Your task to perform on an android device: open app "Grab" Image 0: 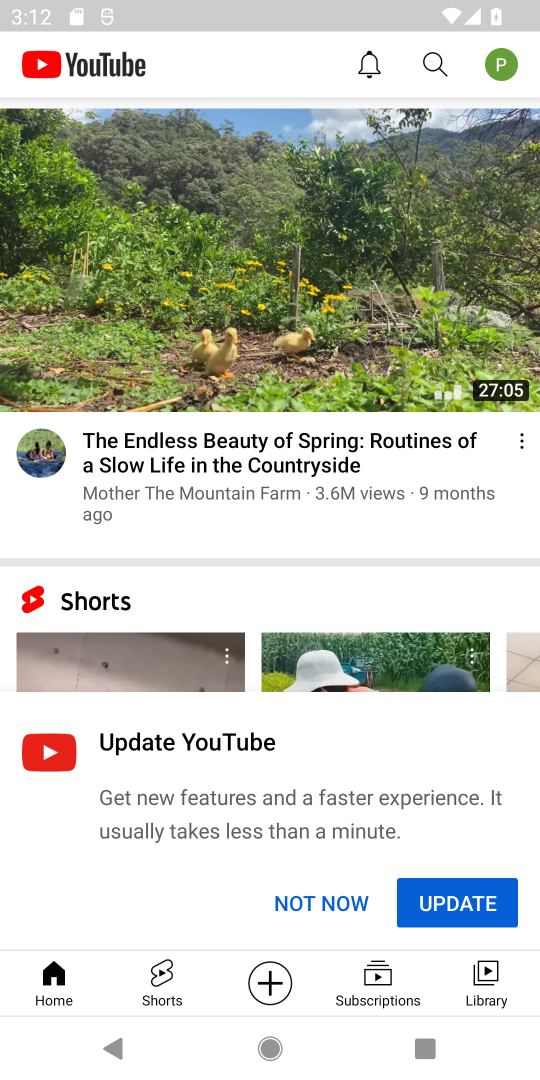
Step 0: press home button
Your task to perform on an android device: open app "Grab" Image 1: 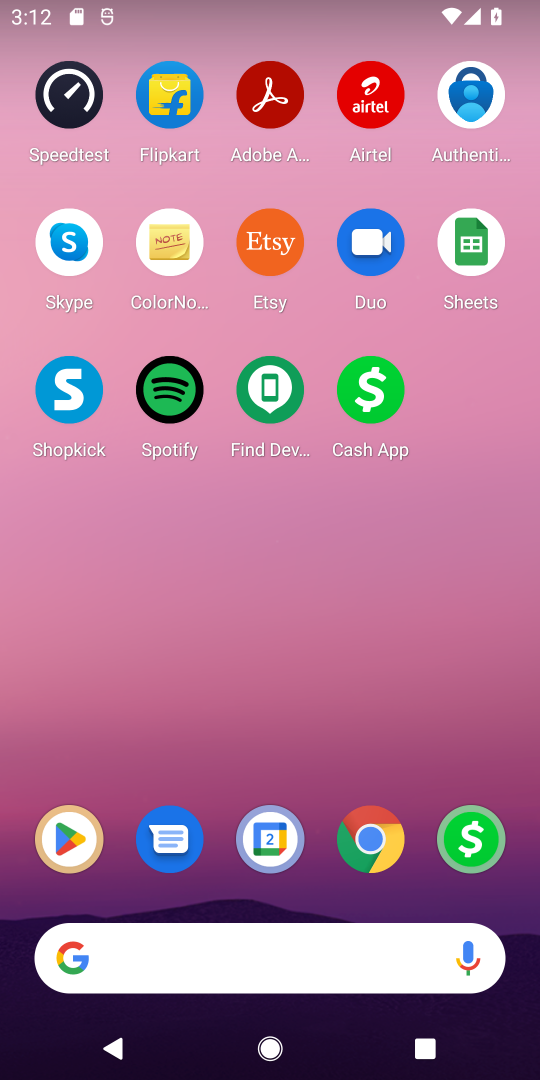
Step 1: click (55, 809)
Your task to perform on an android device: open app "Grab" Image 2: 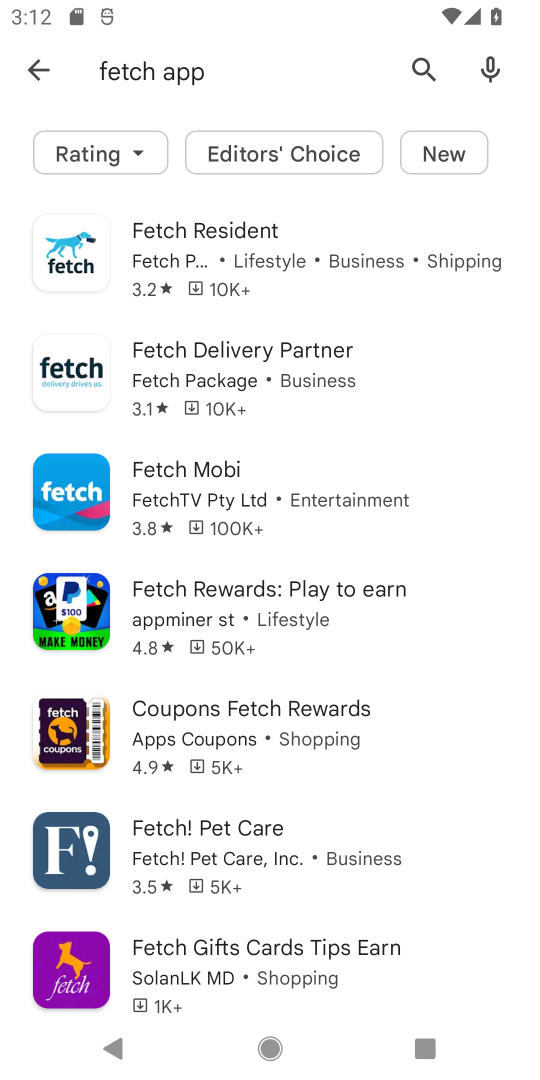
Step 2: click (422, 73)
Your task to perform on an android device: open app "Grab" Image 3: 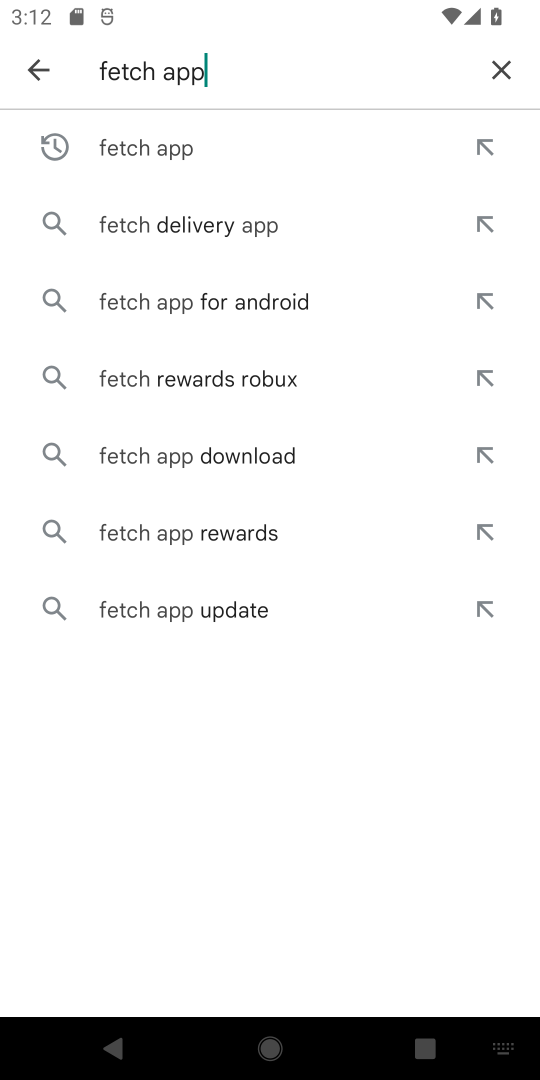
Step 3: click (496, 65)
Your task to perform on an android device: open app "Grab" Image 4: 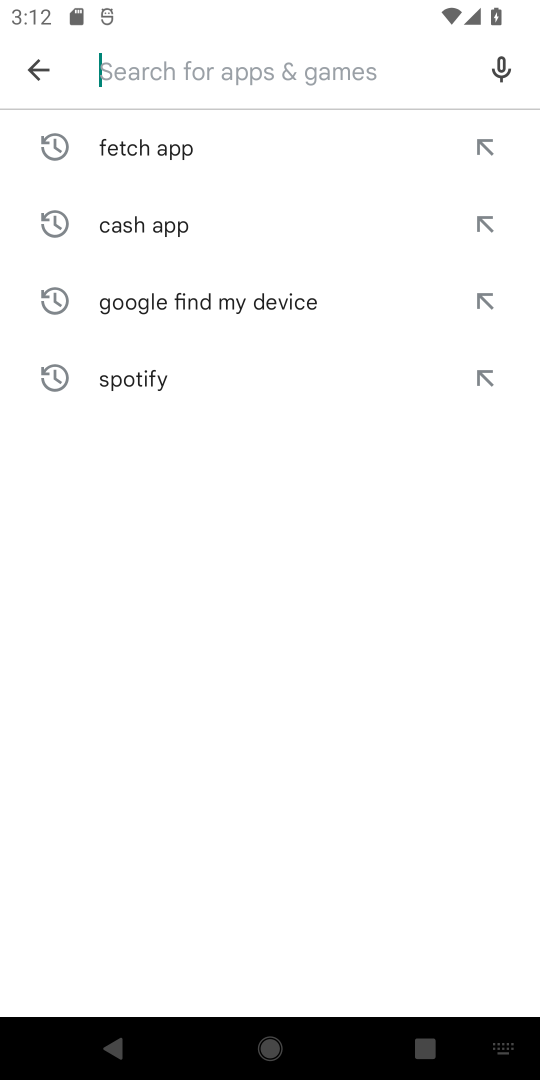
Step 4: type "grab"
Your task to perform on an android device: open app "Grab" Image 5: 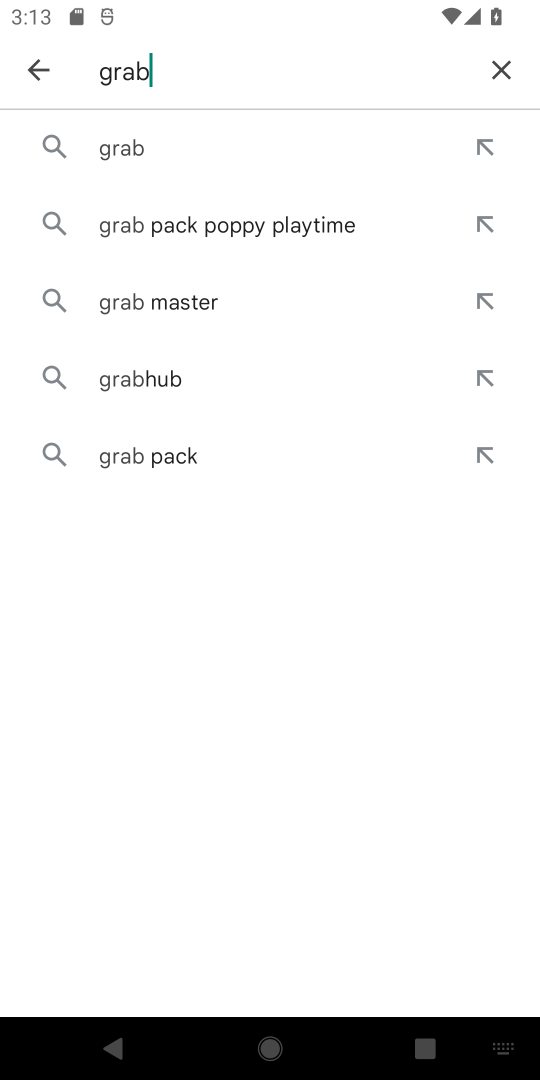
Step 5: click (272, 147)
Your task to perform on an android device: open app "Grab" Image 6: 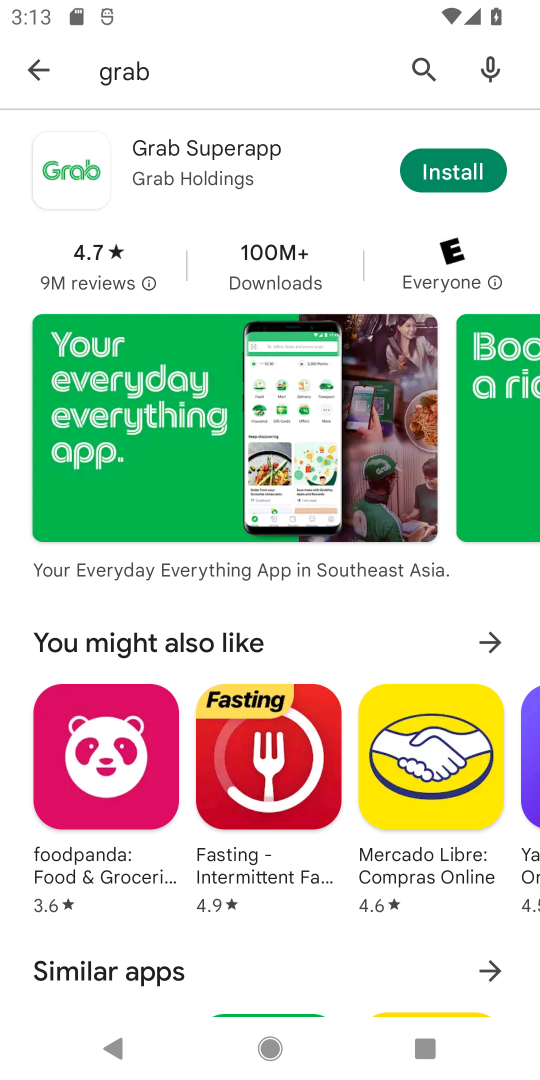
Step 6: click (459, 160)
Your task to perform on an android device: open app "Grab" Image 7: 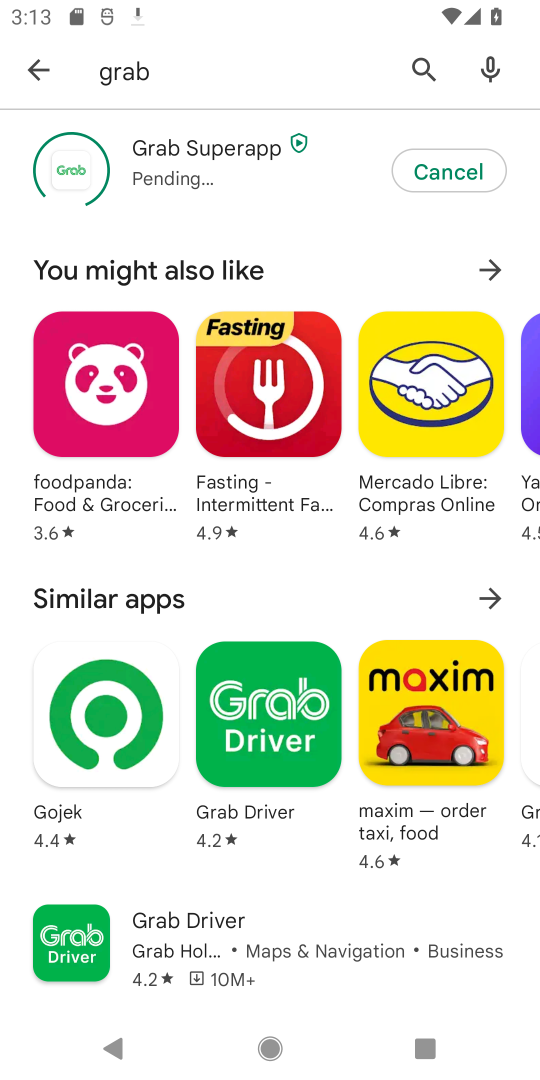
Step 7: task complete